Your task to perform on an android device: Find coffee shops on Maps Image 0: 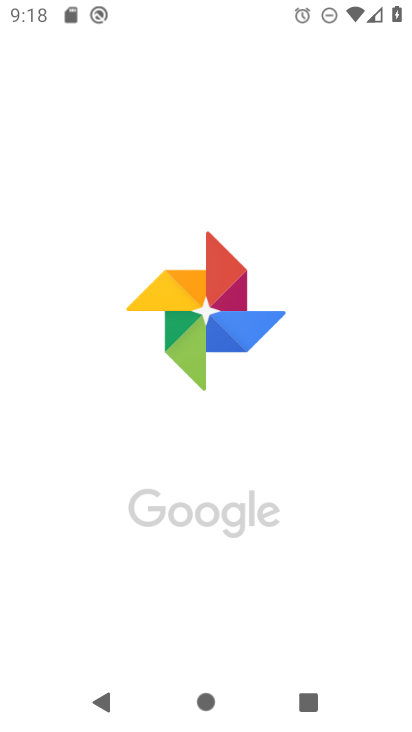
Step 0: drag from (279, 571) to (285, 168)
Your task to perform on an android device: Find coffee shops on Maps Image 1: 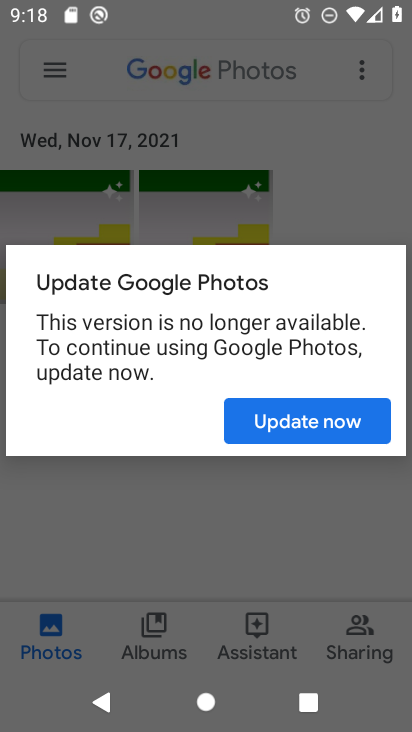
Step 1: press home button
Your task to perform on an android device: Find coffee shops on Maps Image 2: 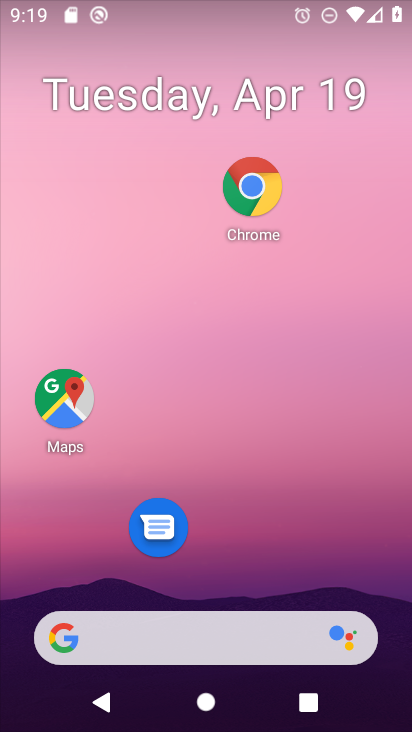
Step 2: drag from (251, 557) to (244, 199)
Your task to perform on an android device: Find coffee shops on Maps Image 3: 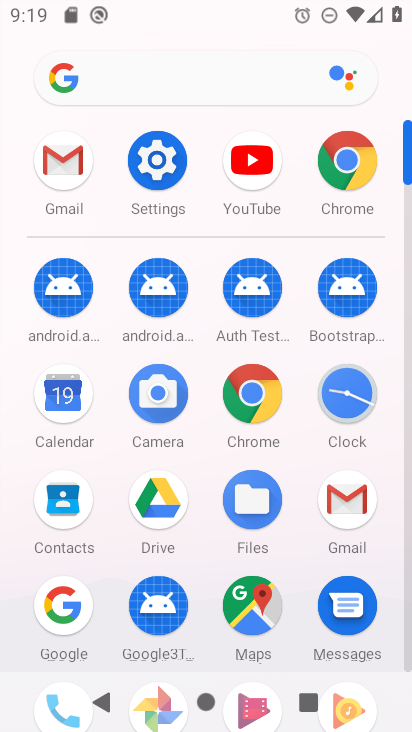
Step 3: click (239, 598)
Your task to perform on an android device: Find coffee shops on Maps Image 4: 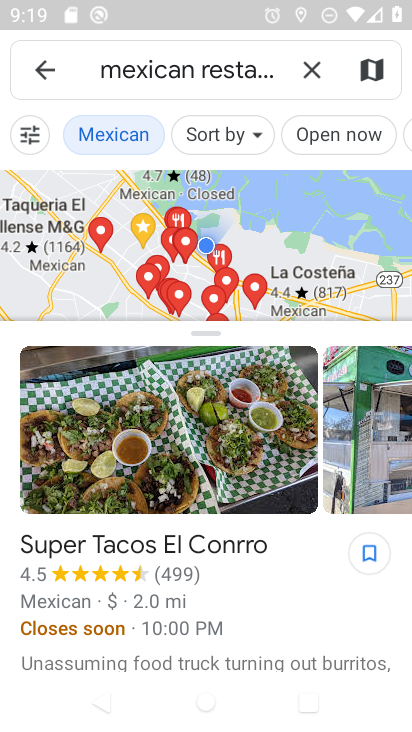
Step 4: click (308, 73)
Your task to perform on an android device: Find coffee shops on Maps Image 5: 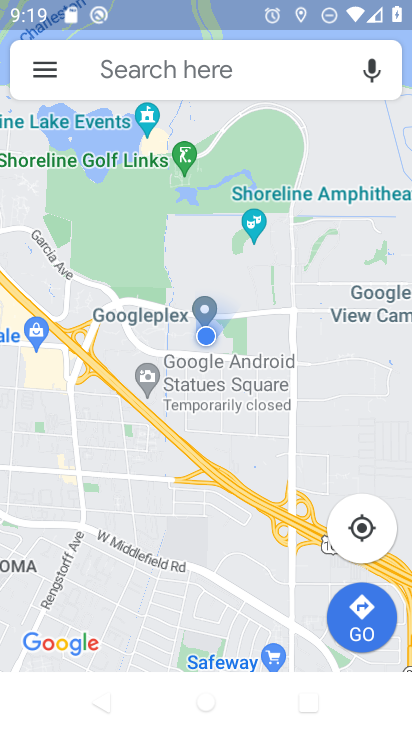
Step 5: click (170, 54)
Your task to perform on an android device: Find coffee shops on Maps Image 6: 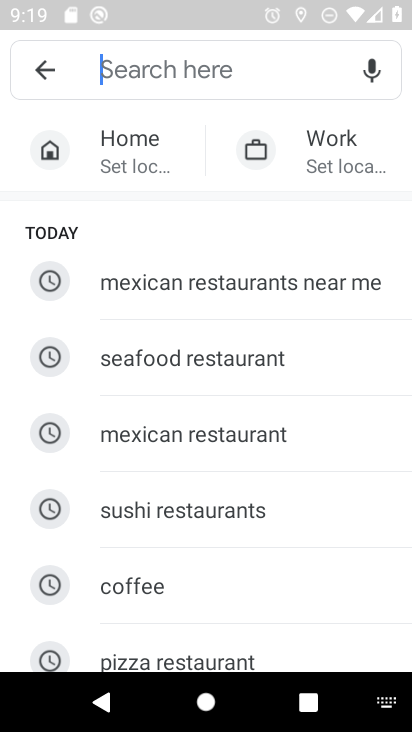
Step 6: type " coffee shops"
Your task to perform on an android device: Find coffee shops on Maps Image 7: 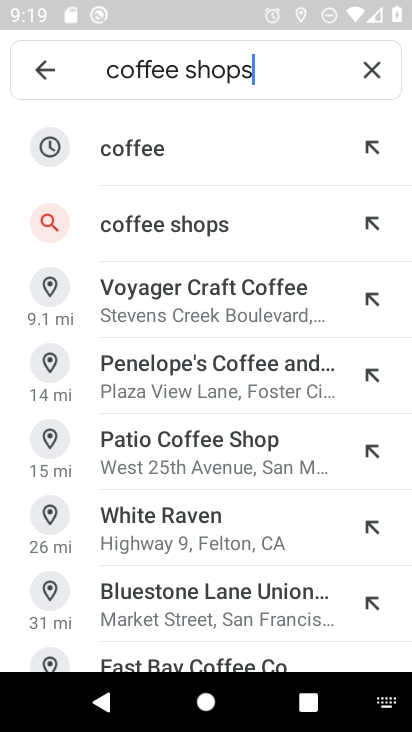
Step 7: click (228, 153)
Your task to perform on an android device: Find coffee shops on Maps Image 8: 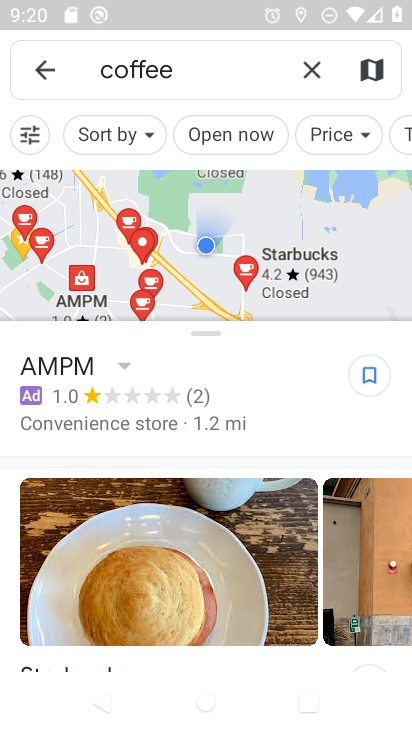
Step 8: task complete